Your task to perform on an android device: What's the weather like in Sydney? Image 0: 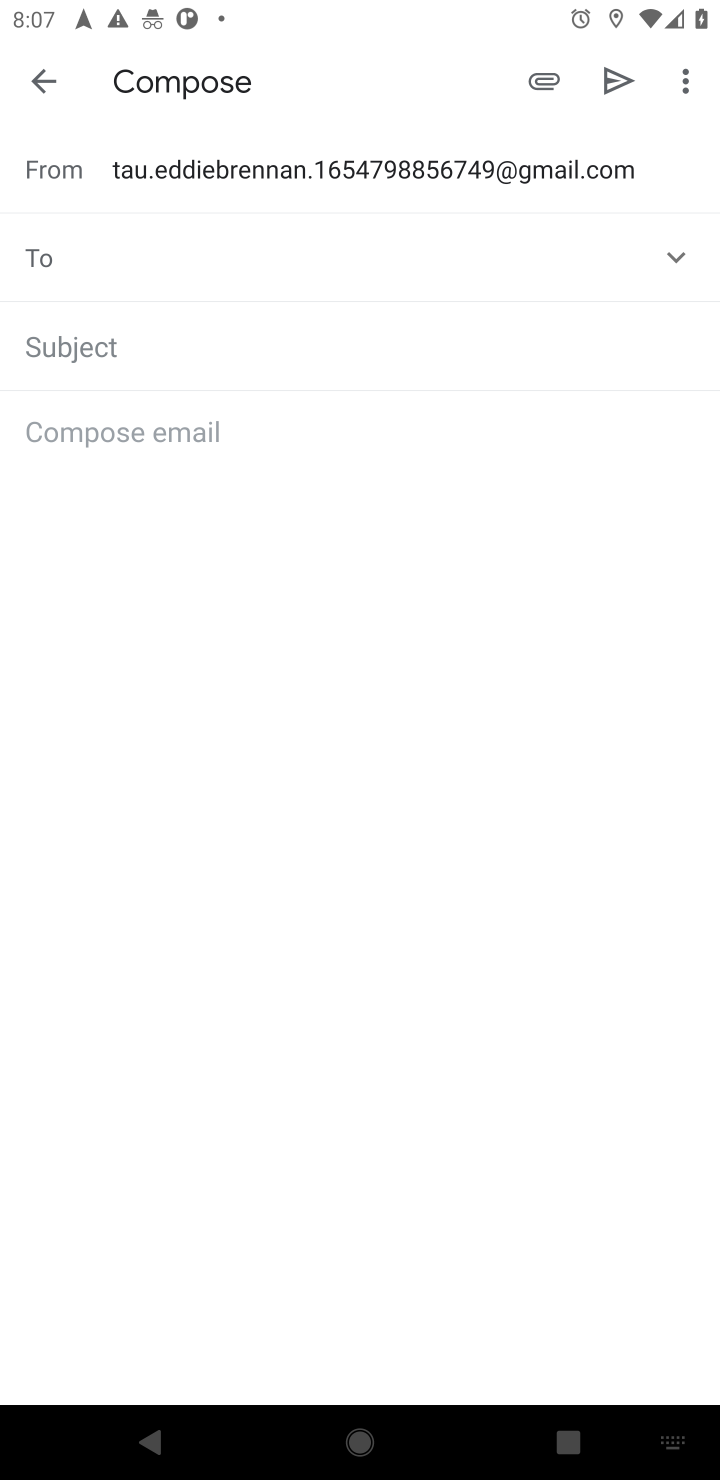
Step 0: press home button
Your task to perform on an android device: What's the weather like in Sydney? Image 1: 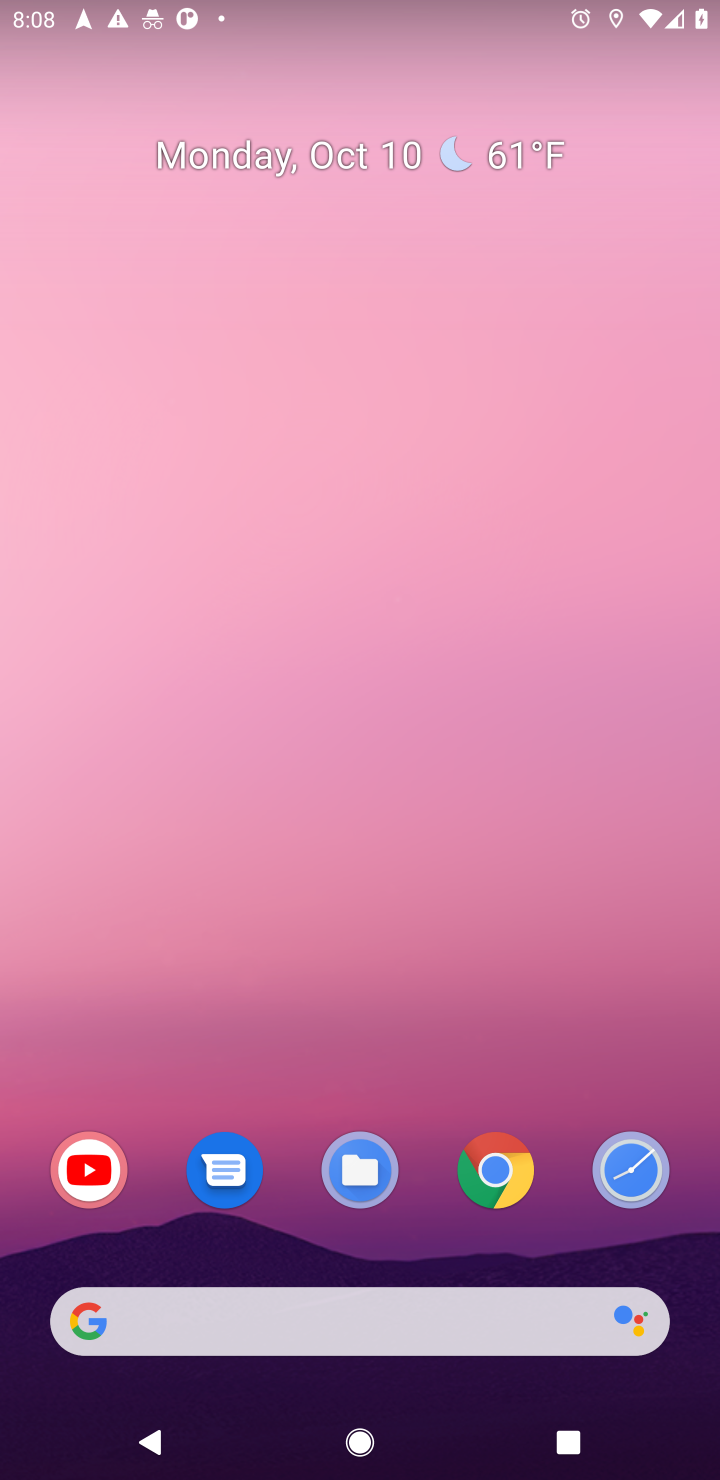
Step 1: click (487, 1175)
Your task to perform on an android device: What's the weather like in Sydney? Image 2: 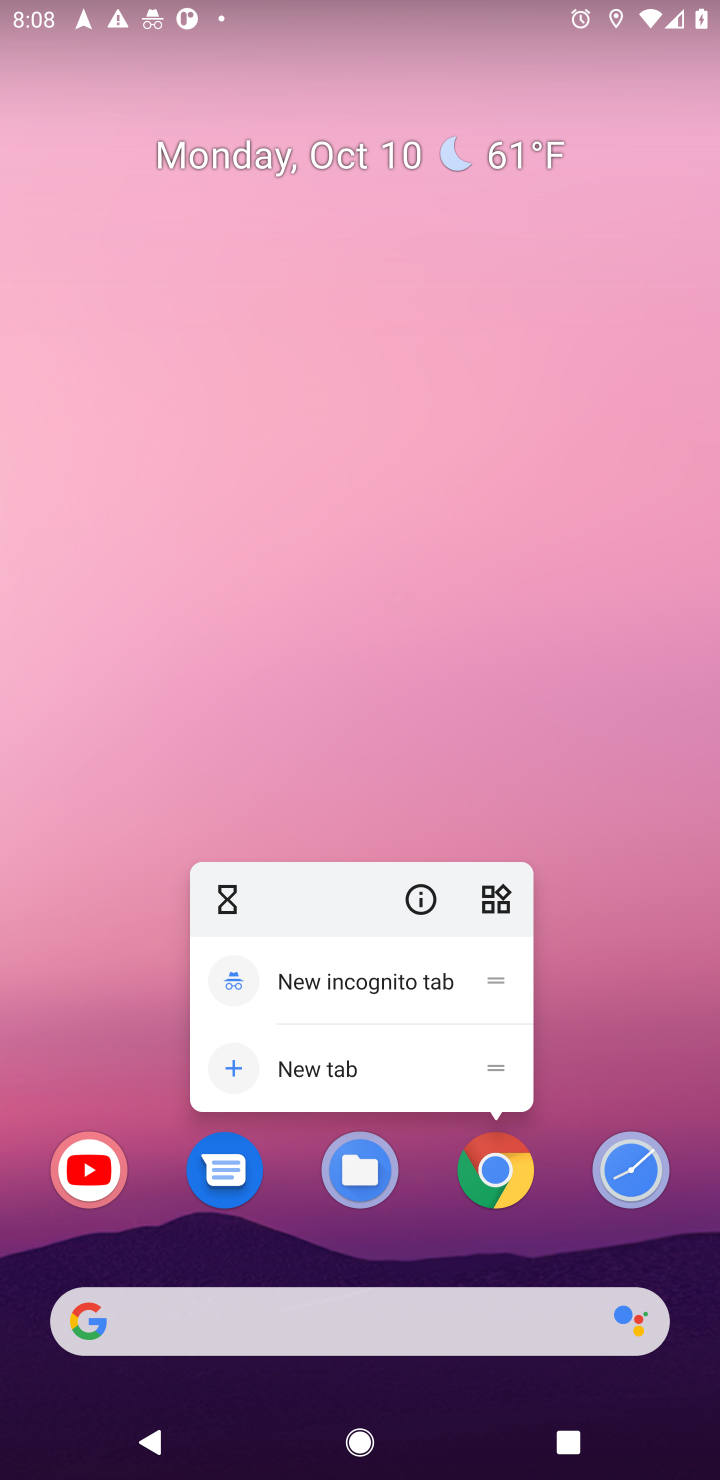
Step 2: click (505, 1157)
Your task to perform on an android device: What's the weather like in Sydney? Image 3: 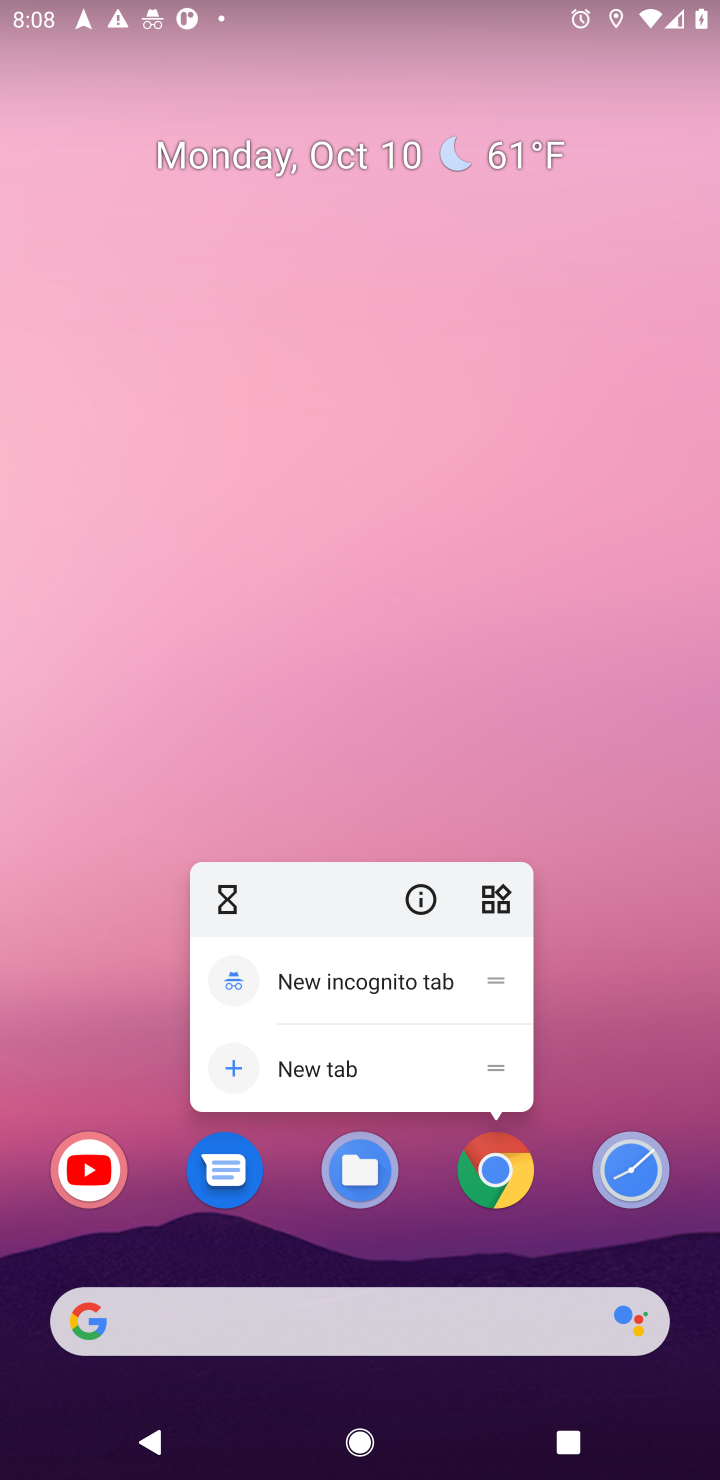
Step 3: click (506, 1169)
Your task to perform on an android device: What's the weather like in Sydney? Image 4: 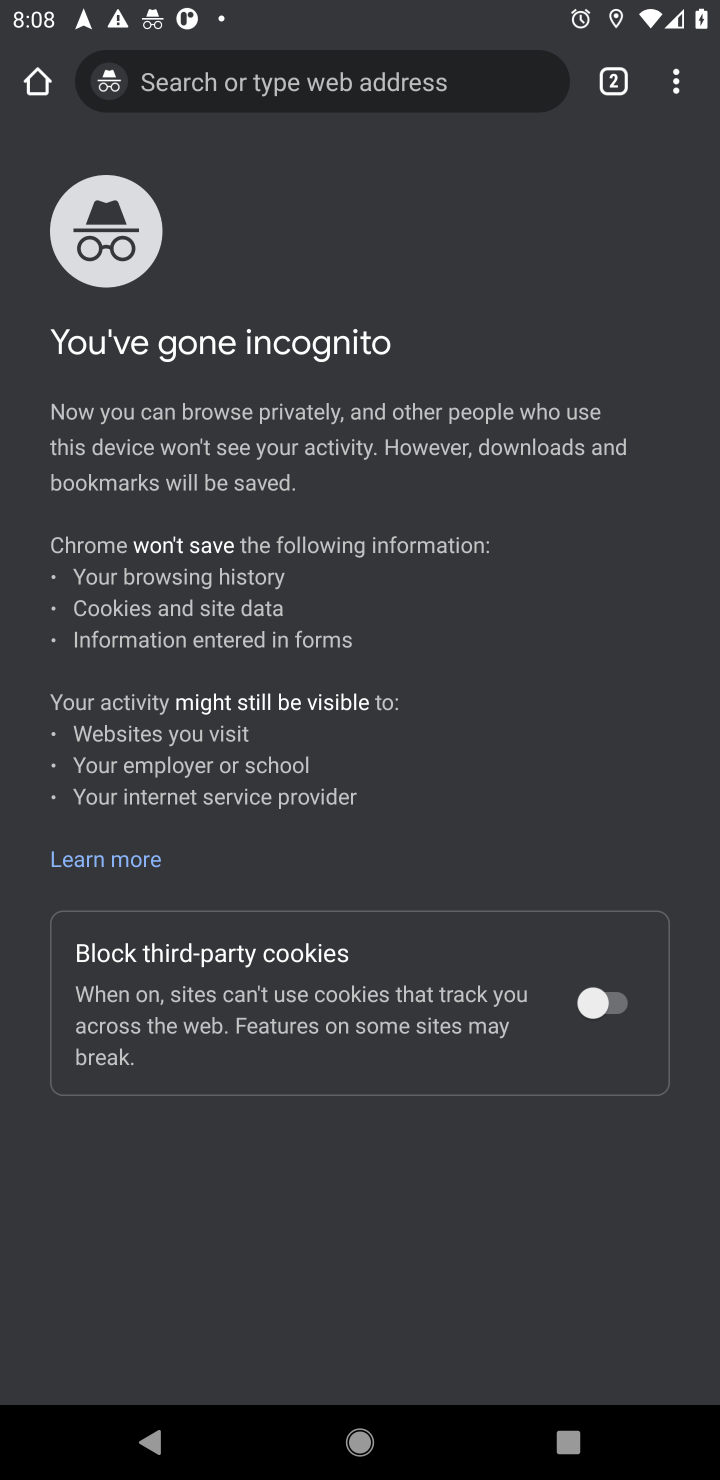
Step 4: click (431, 81)
Your task to perform on an android device: What's the weather like in Sydney? Image 5: 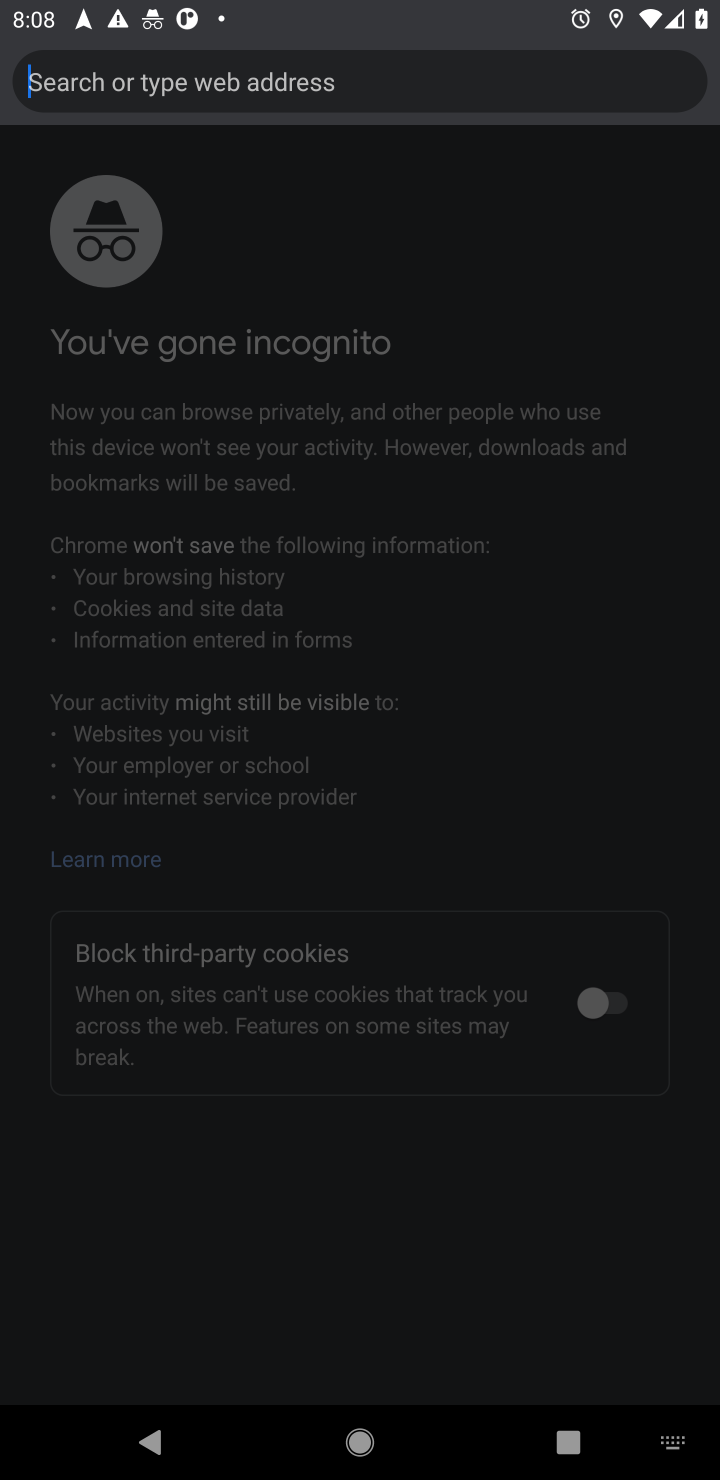
Step 5: type "weather like in Sydney"
Your task to perform on an android device: What's the weather like in Sydney? Image 6: 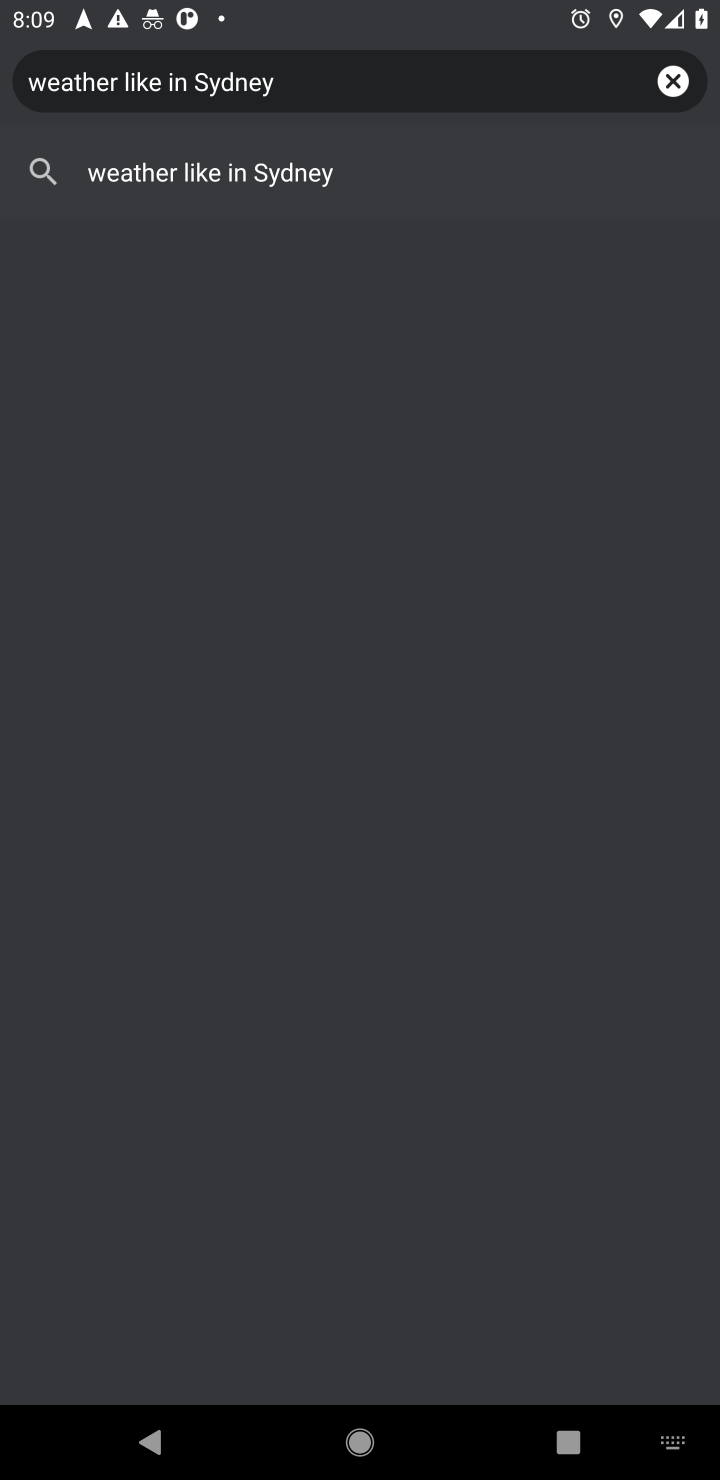
Step 6: click (569, 183)
Your task to perform on an android device: What's the weather like in Sydney? Image 7: 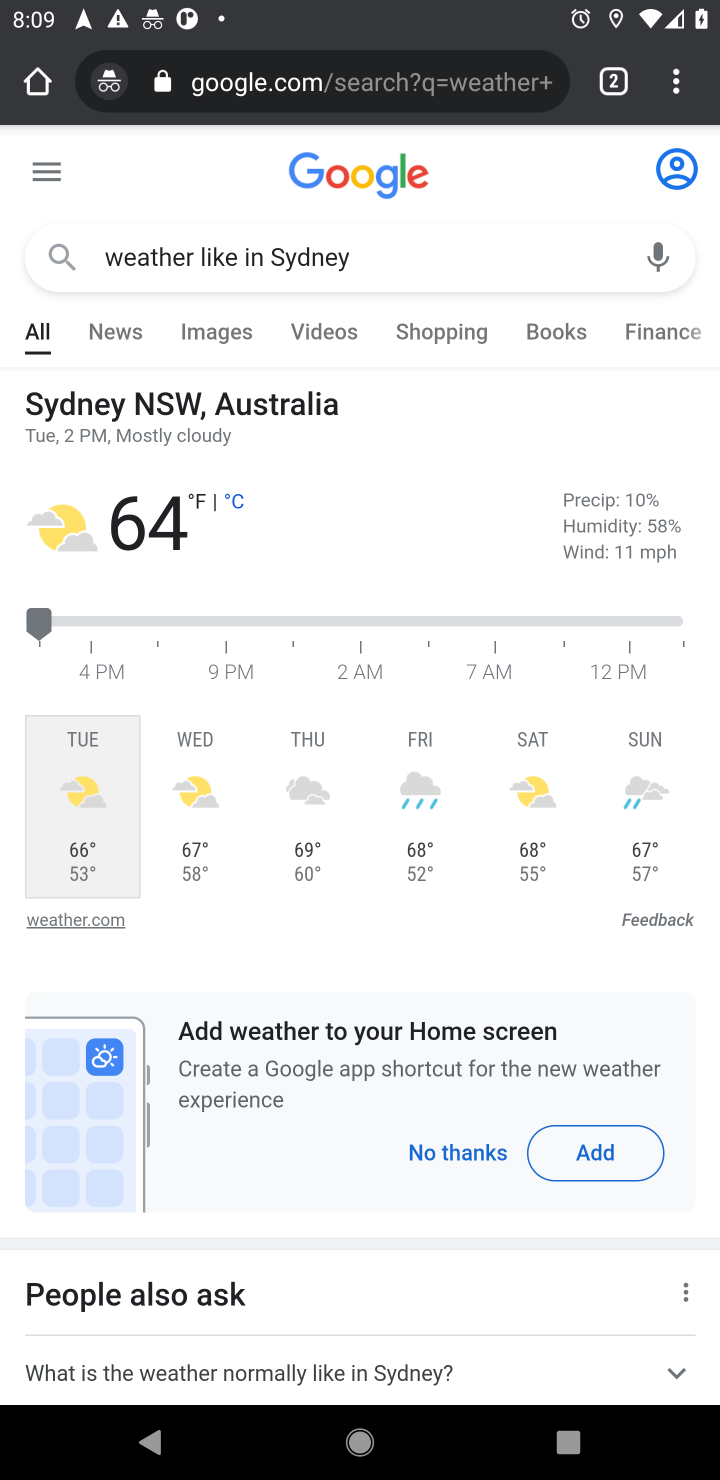
Step 7: task complete